Your task to perform on an android device: turn notification dots on Image 0: 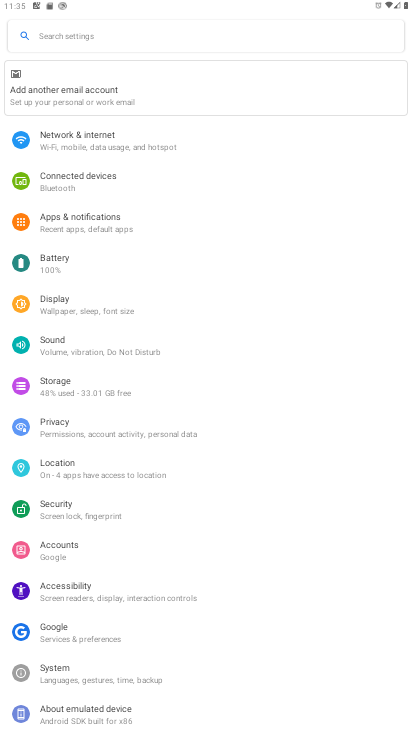
Step 0: click (121, 236)
Your task to perform on an android device: turn notification dots on Image 1: 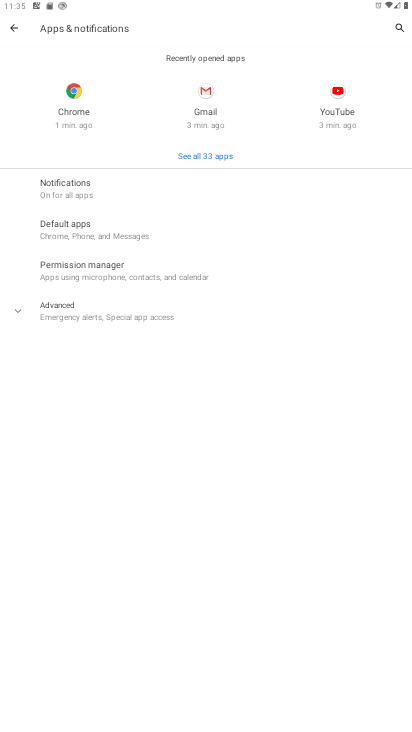
Step 1: click (90, 191)
Your task to perform on an android device: turn notification dots on Image 2: 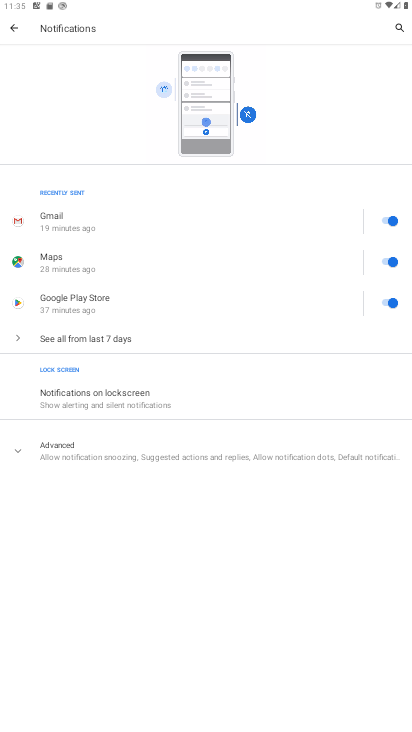
Step 2: click (122, 443)
Your task to perform on an android device: turn notification dots on Image 3: 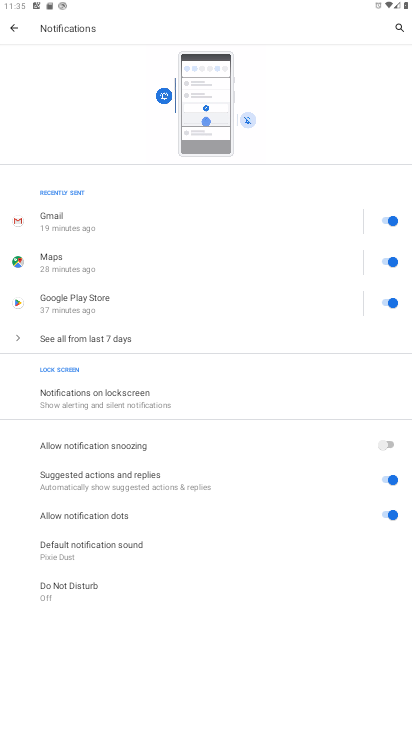
Step 3: task complete